Your task to perform on an android device: Go to Reddit.com Image 0: 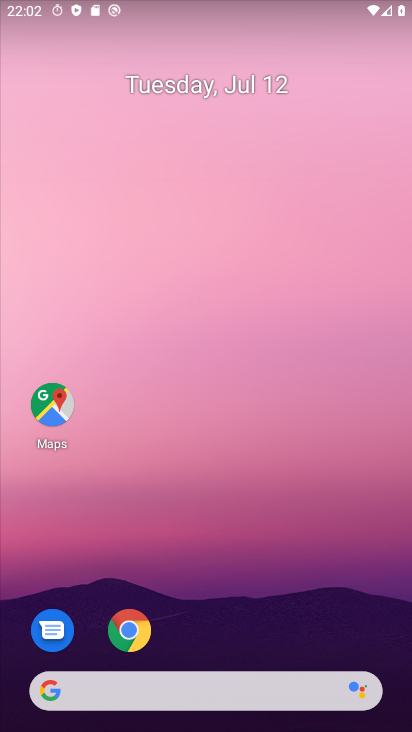
Step 0: click (137, 620)
Your task to perform on an android device: Go to Reddit.com Image 1: 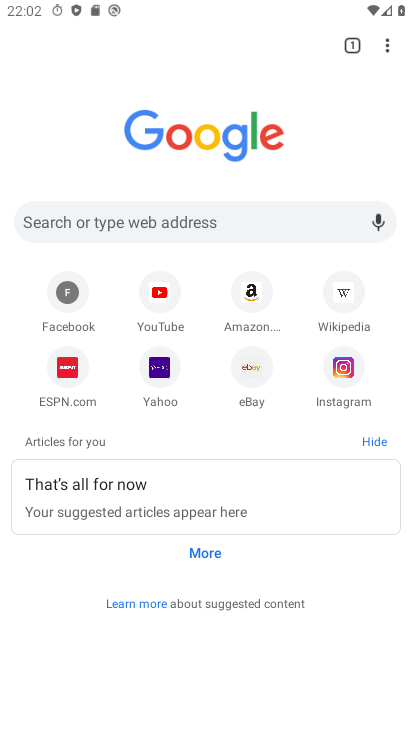
Step 1: click (168, 225)
Your task to perform on an android device: Go to Reddit.com Image 2: 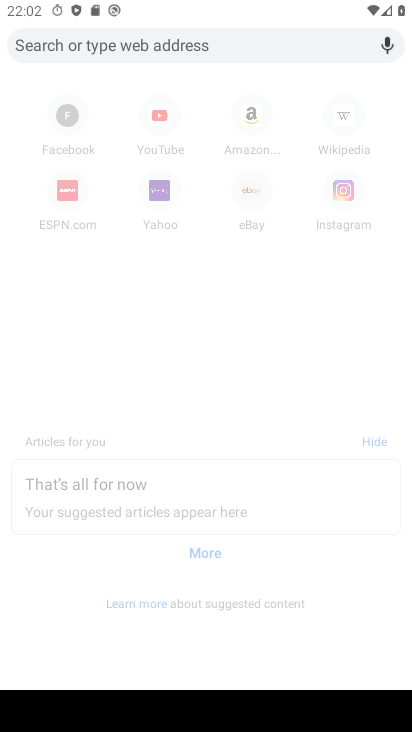
Step 2: type "reddit.com"
Your task to perform on an android device: Go to Reddit.com Image 3: 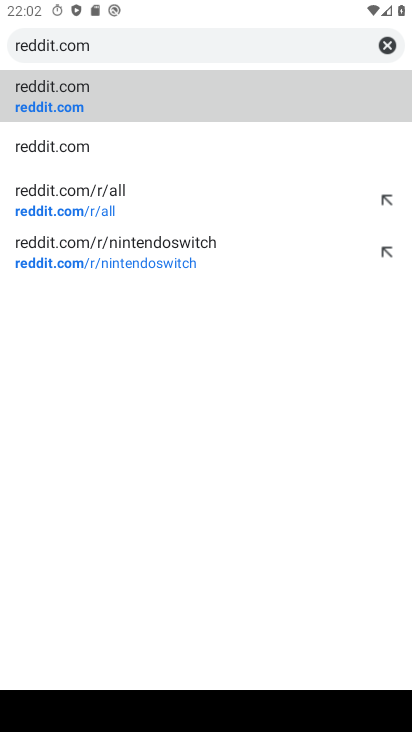
Step 3: click (77, 77)
Your task to perform on an android device: Go to Reddit.com Image 4: 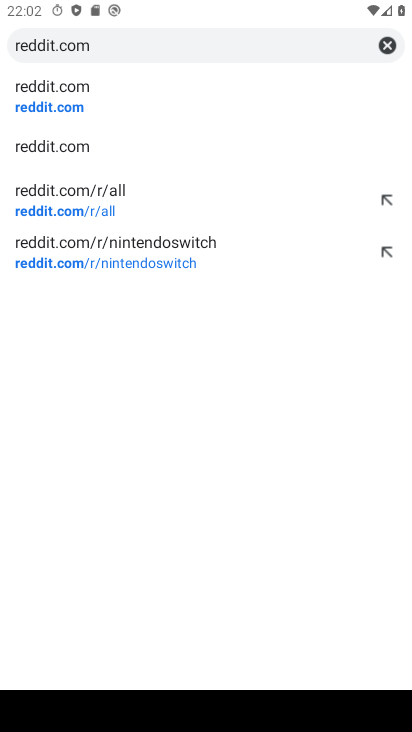
Step 4: click (78, 86)
Your task to perform on an android device: Go to Reddit.com Image 5: 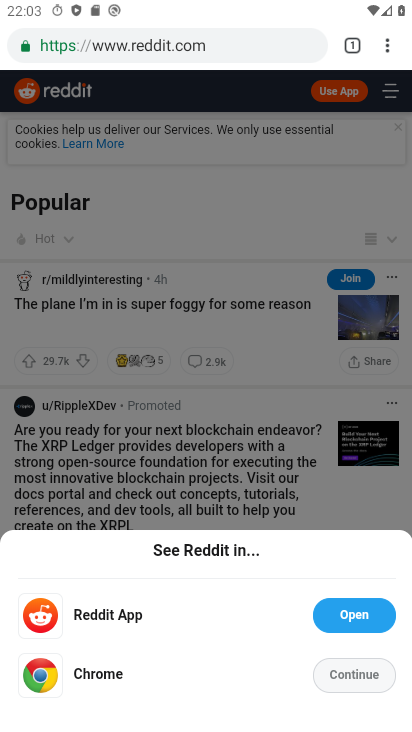
Step 5: task complete